Your task to perform on an android device: add a contact Image 0: 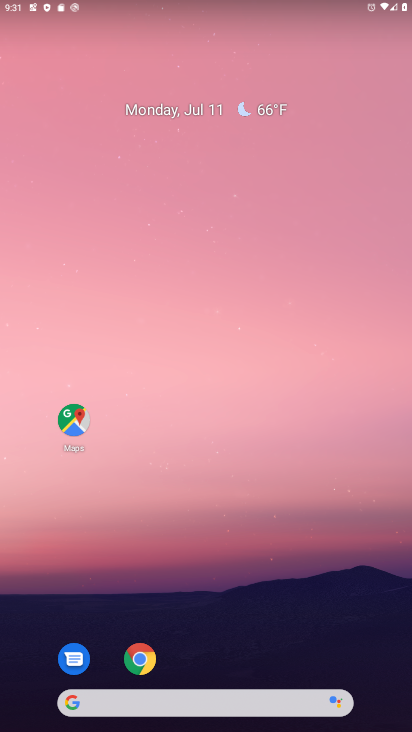
Step 0: drag from (338, 635) to (347, 123)
Your task to perform on an android device: add a contact Image 1: 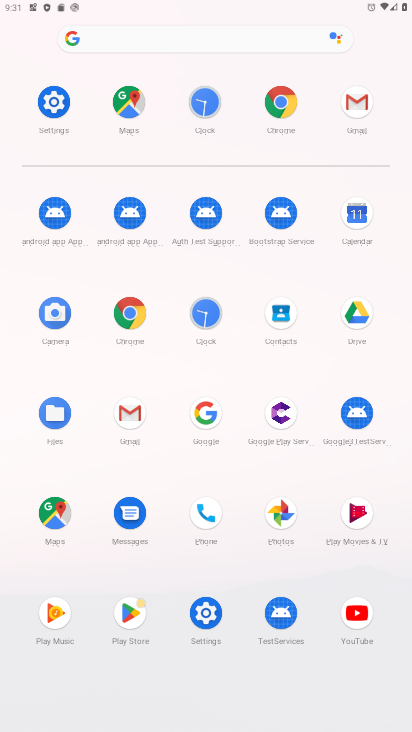
Step 1: click (287, 320)
Your task to perform on an android device: add a contact Image 2: 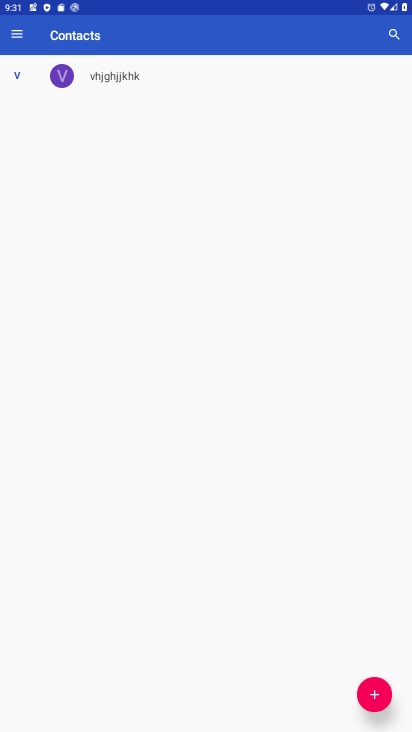
Step 2: click (375, 700)
Your task to perform on an android device: add a contact Image 3: 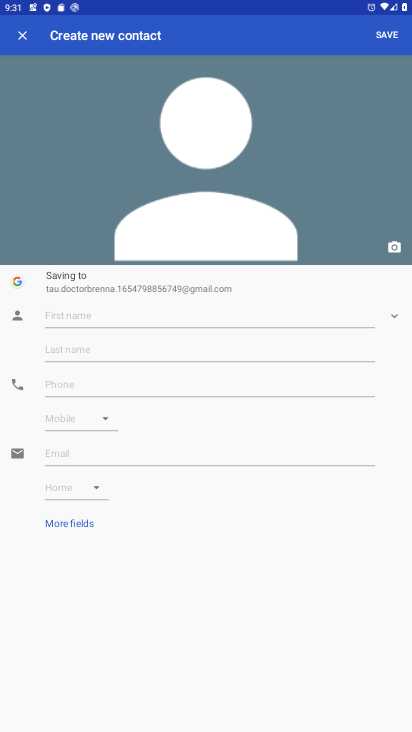
Step 3: click (246, 315)
Your task to perform on an android device: add a contact Image 4: 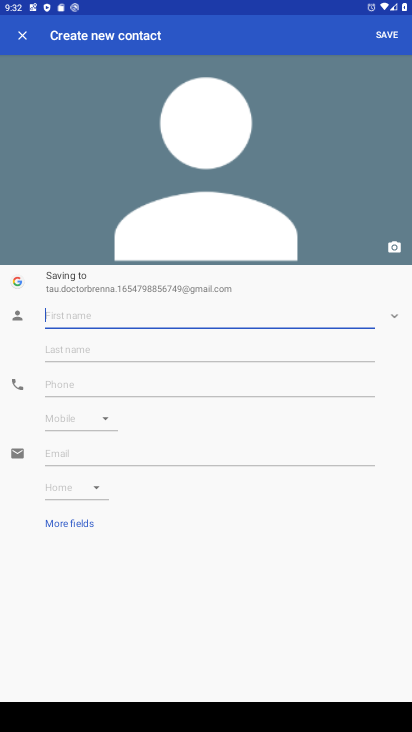
Step 4: type "fav"
Your task to perform on an android device: add a contact Image 5: 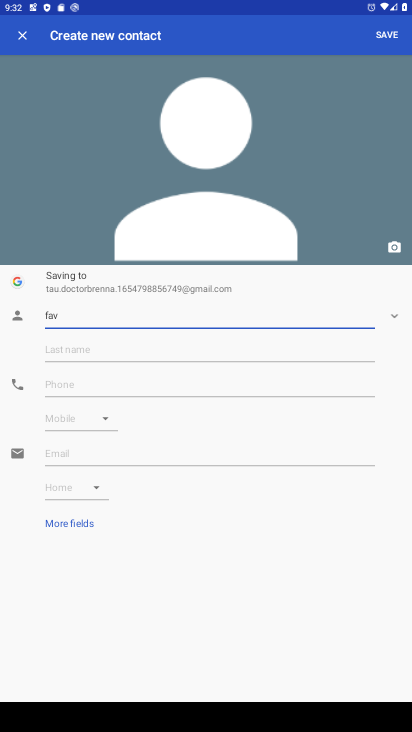
Step 5: click (355, 381)
Your task to perform on an android device: add a contact Image 6: 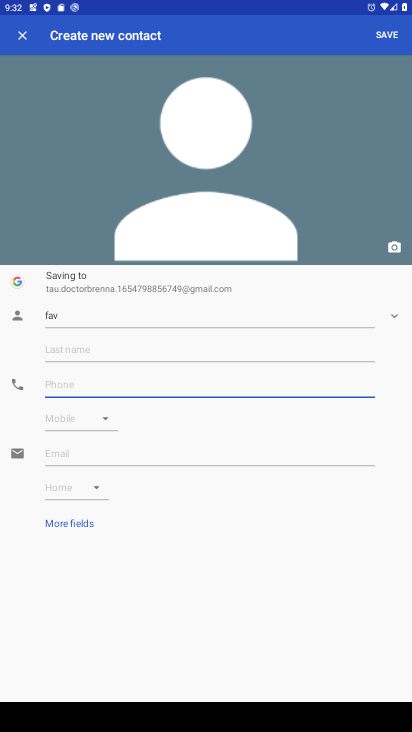
Step 6: type "123456789"
Your task to perform on an android device: add a contact Image 7: 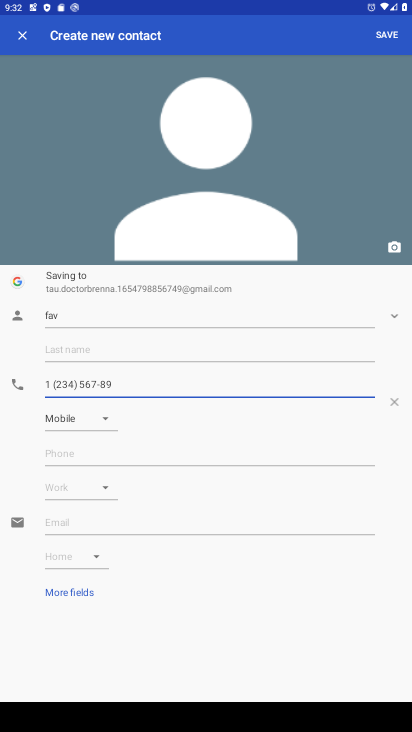
Step 7: click (390, 34)
Your task to perform on an android device: add a contact Image 8: 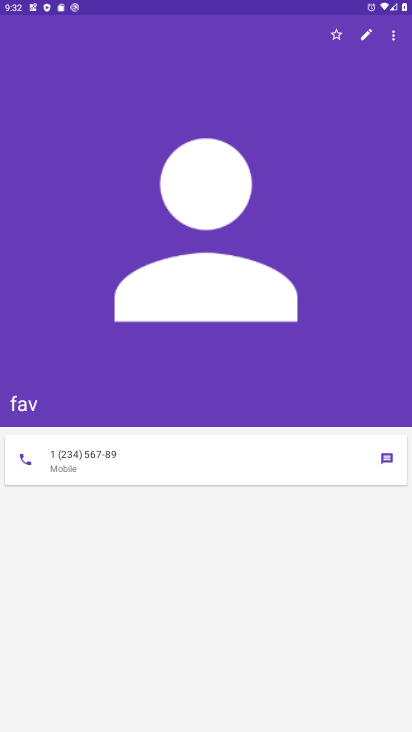
Step 8: task complete